Your task to perform on an android device: Open the web browser Image 0: 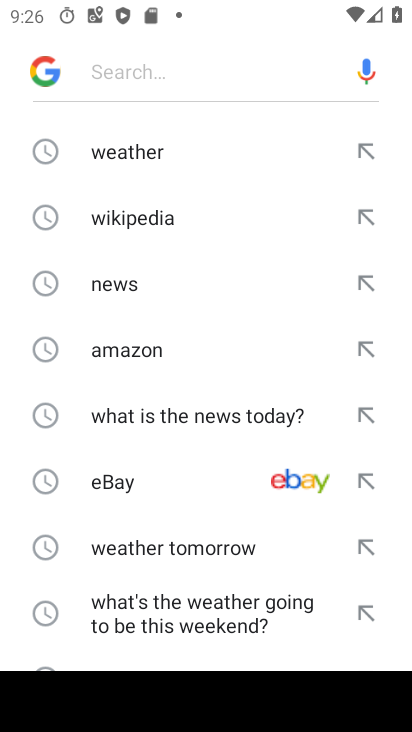
Step 0: press back button
Your task to perform on an android device: Open the web browser Image 1: 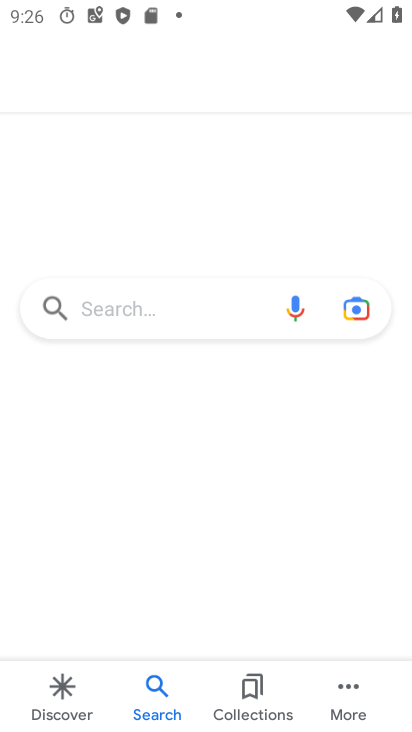
Step 1: task complete